Your task to perform on an android device: turn on notifications settings in the gmail app Image 0: 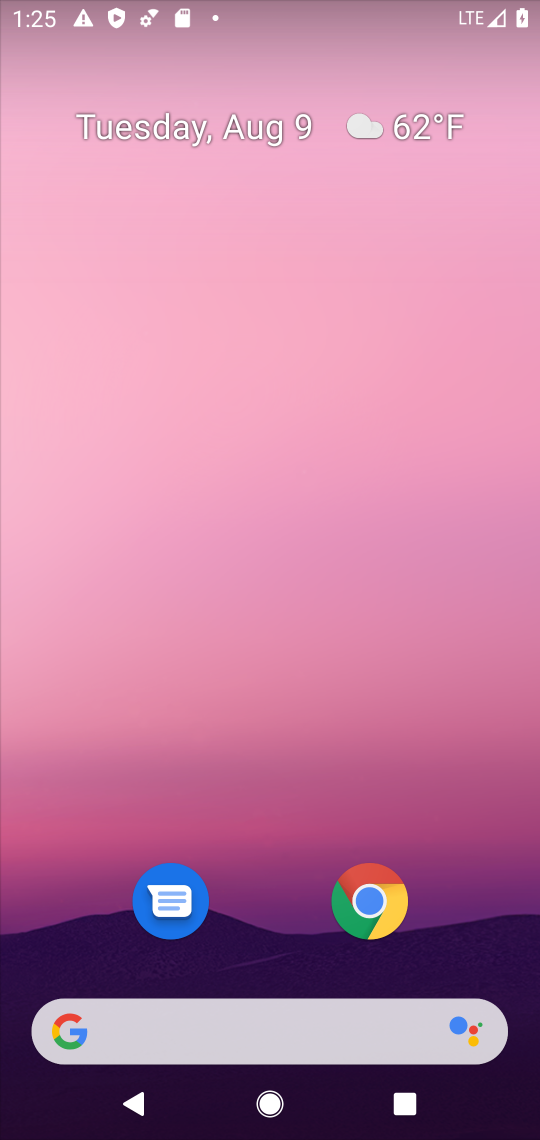
Step 0: drag from (519, 962) to (448, 151)
Your task to perform on an android device: turn on notifications settings in the gmail app Image 1: 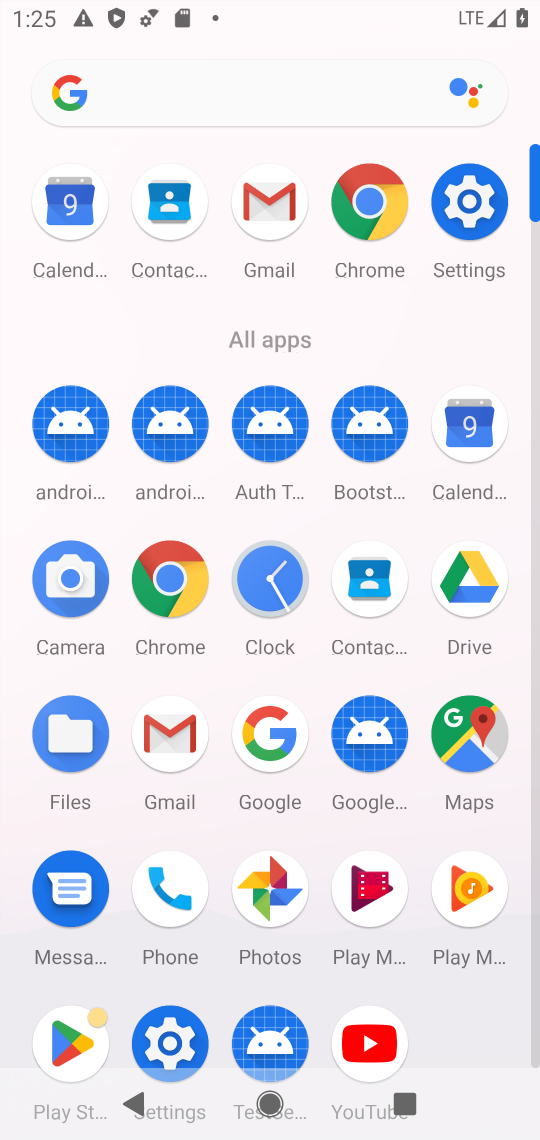
Step 1: click (164, 733)
Your task to perform on an android device: turn on notifications settings in the gmail app Image 2: 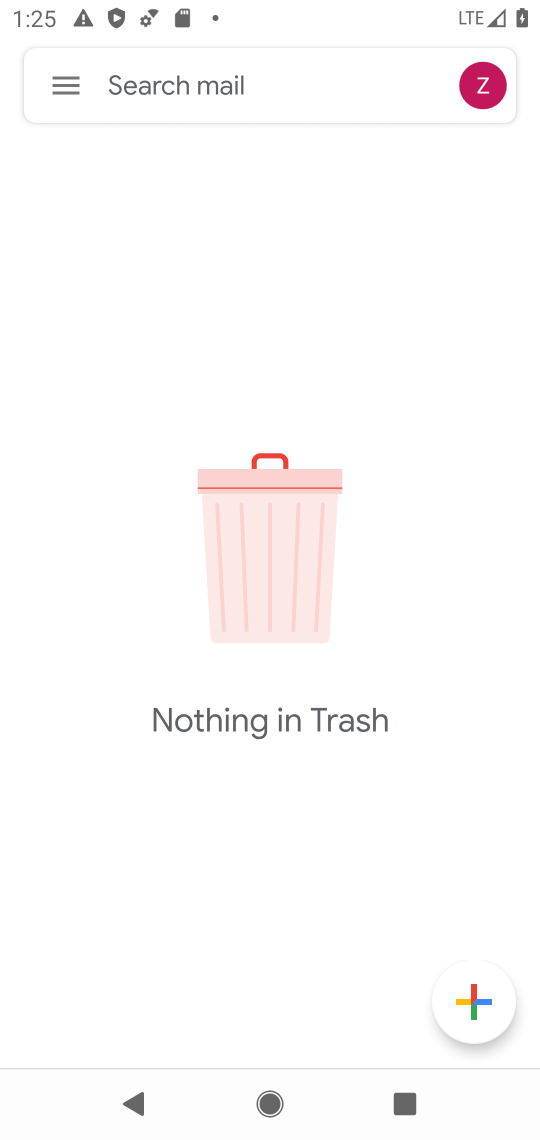
Step 2: click (65, 89)
Your task to perform on an android device: turn on notifications settings in the gmail app Image 3: 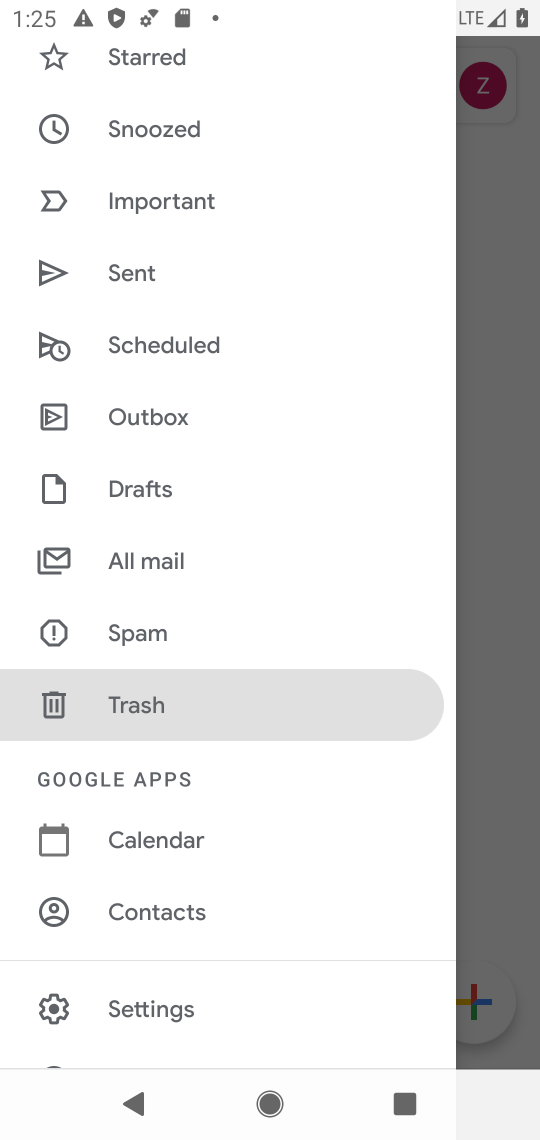
Step 3: drag from (227, 984) to (238, 568)
Your task to perform on an android device: turn on notifications settings in the gmail app Image 4: 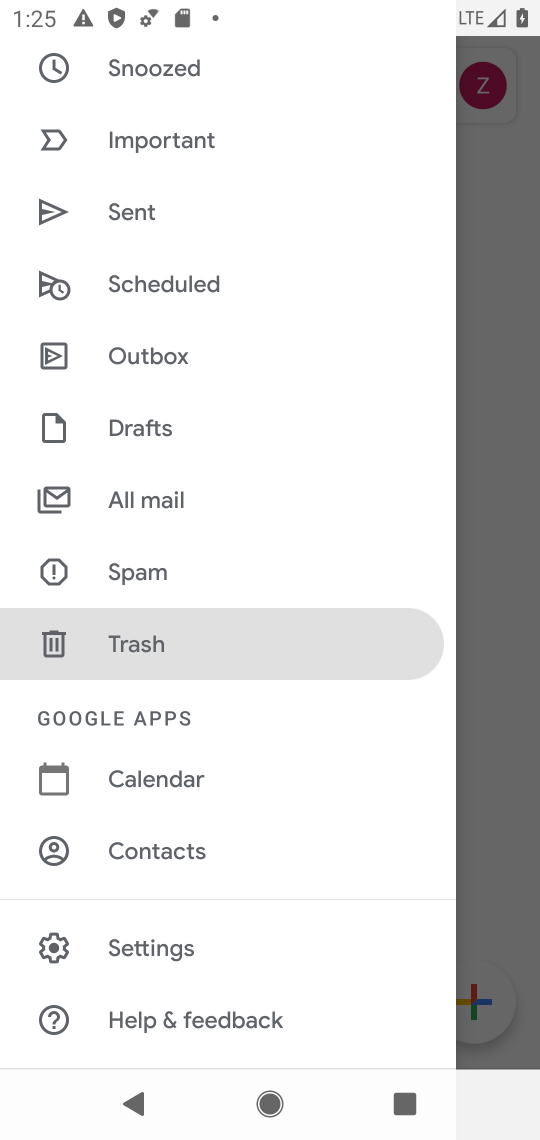
Step 4: click (141, 955)
Your task to perform on an android device: turn on notifications settings in the gmail app Image 5: 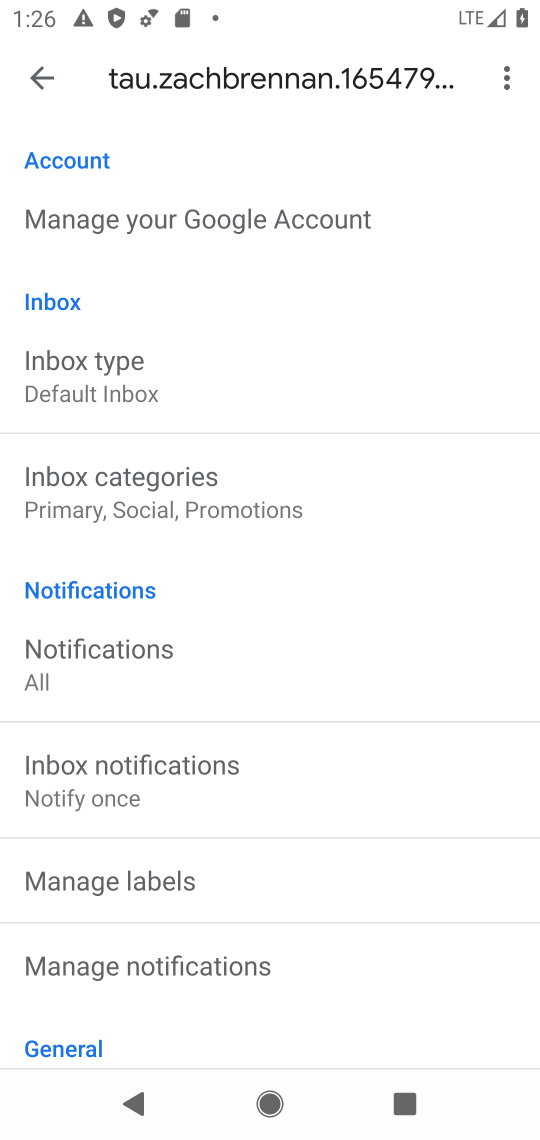
Step 5: drag from (240, 979) to (251, 565)
Your task to perform on an android device: turn on notifications settings in the gmail app Image 6: 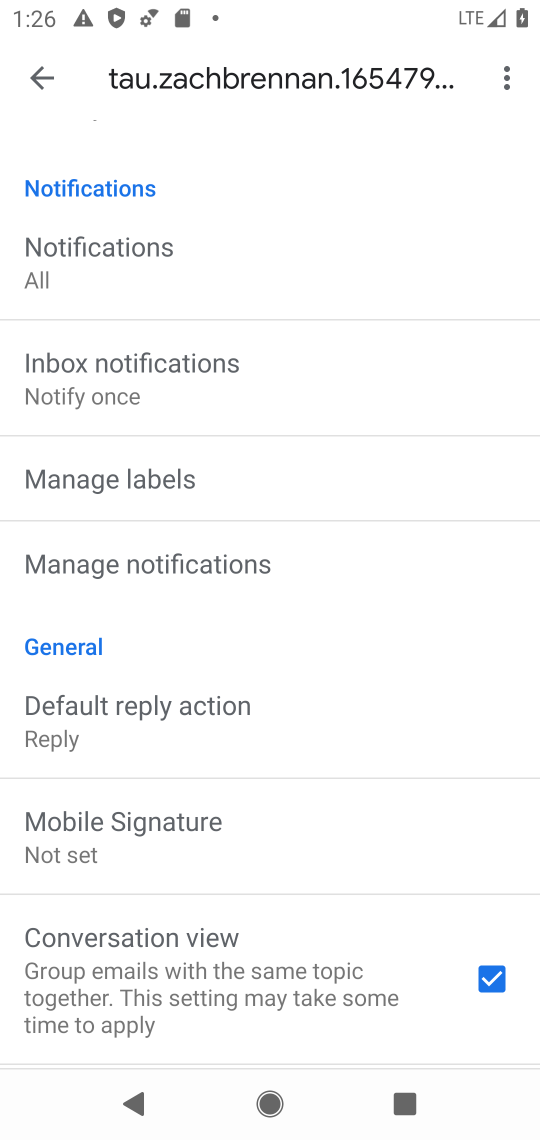
Step 6: click (164, 569)
Your task to perform on an android device: turn on notifications settings in the gmail app Image 7: 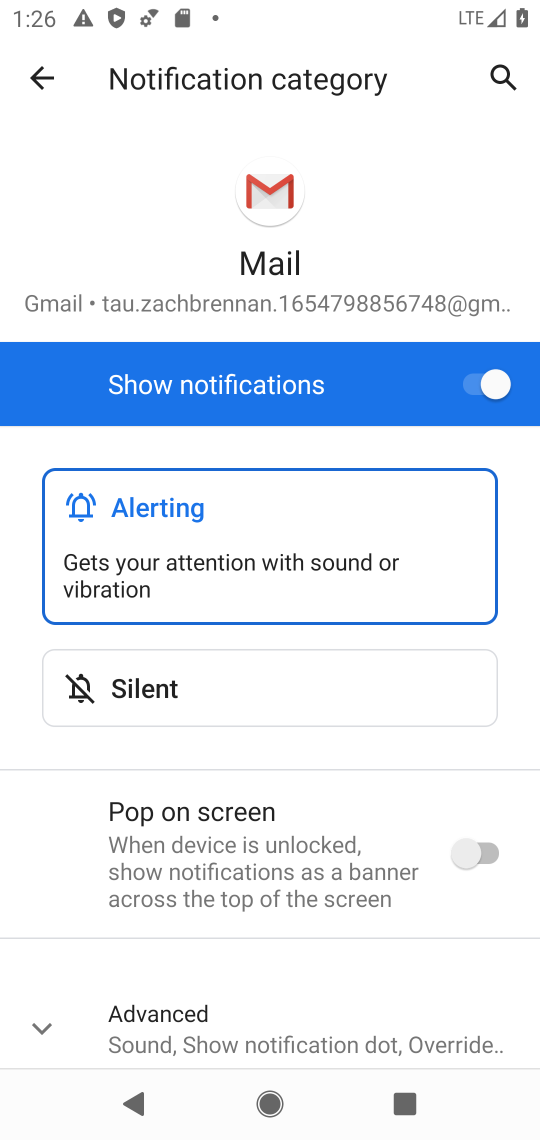
Step 7: task complete